Your task to perform on an android device: toggle show notifications on the lock screen Image 0: 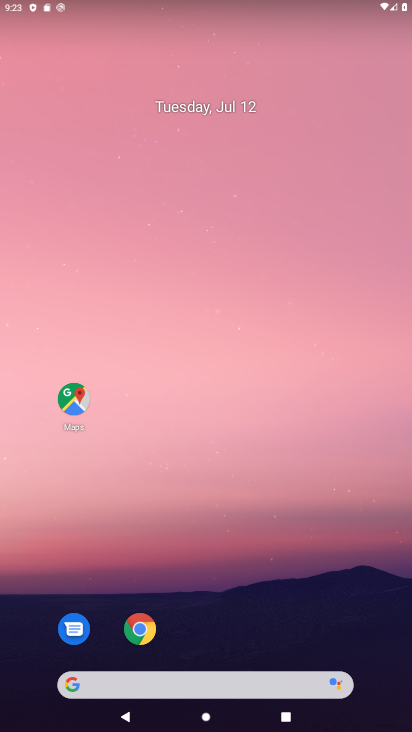
Step 0: drag from (239, 669) to (287, 50)
Your task to perform on an android device: toggle show notifications on the lock screen Image 1: 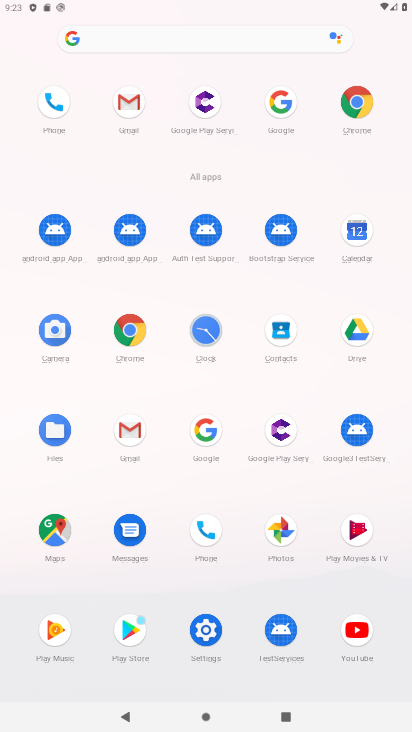
Step 1: drag from (174, 683) to (209, 21)
Your task to perform on an android device: toggle show notifications on the lock screen Image 2: 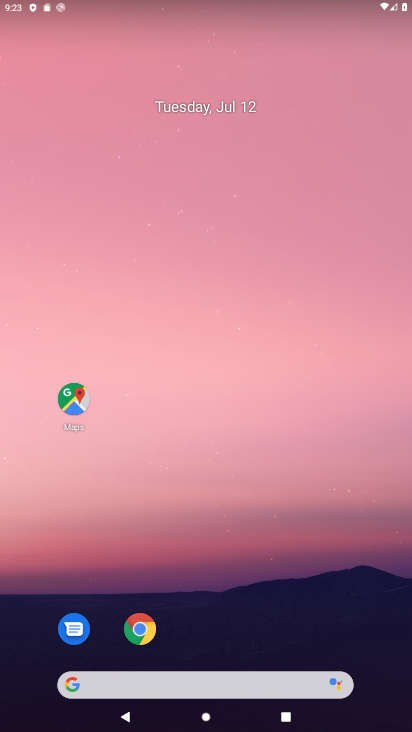
Step 2: drag from (303, 663) to (368, 1)
Your task to perform on an android device: toggle show notifications on the lock screen Image 3: 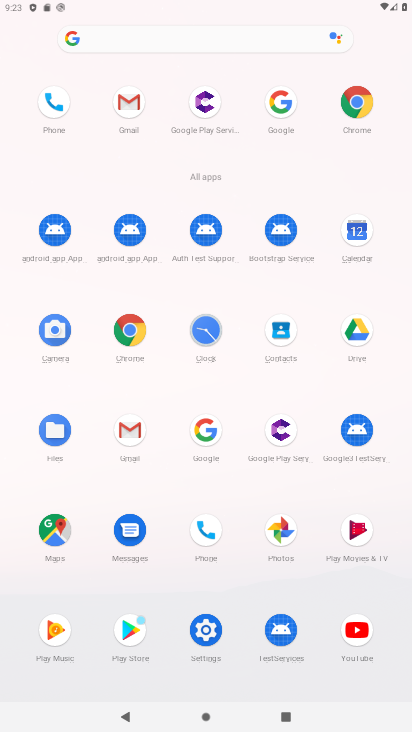
Step 3: click (208, 638)
Your task to perform on an android device: toggle show notifications on the lock screen Image 4: 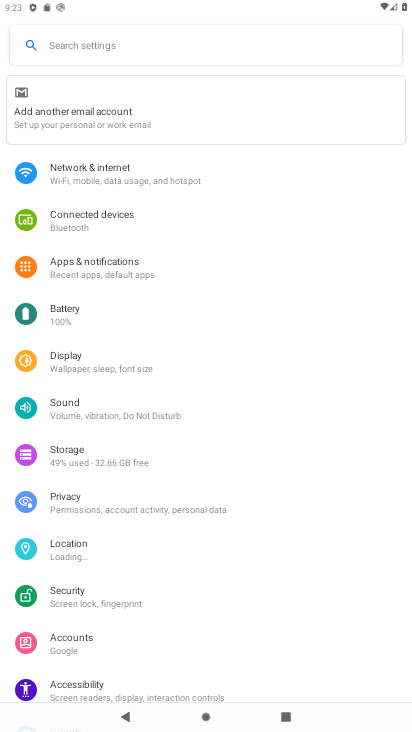
Step 4: click (120, 264)
Your task to perform on an android device: toggle show notifications on the lock screen Image 5: 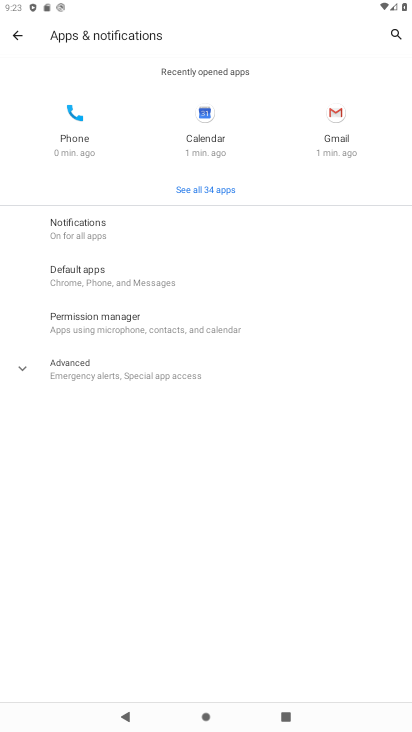
Step 5: click (107, 234)
Your task to perform on an android device: toggle show notifications on the lock screen Image 6: 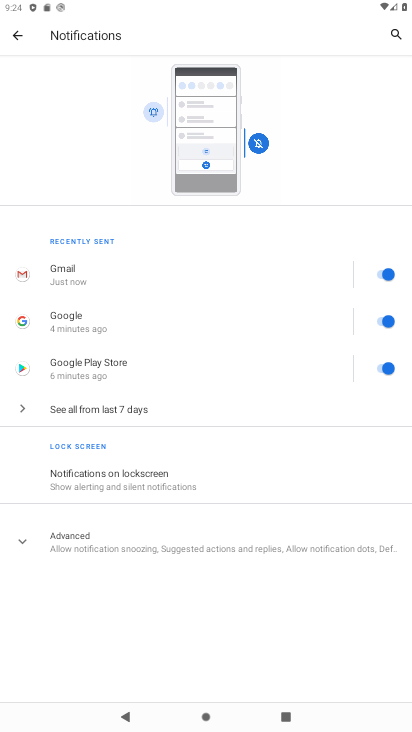
Step 6: click (111, 479)
Your task to perform on an android device: toggle show notifications on the lock screen Image 7: 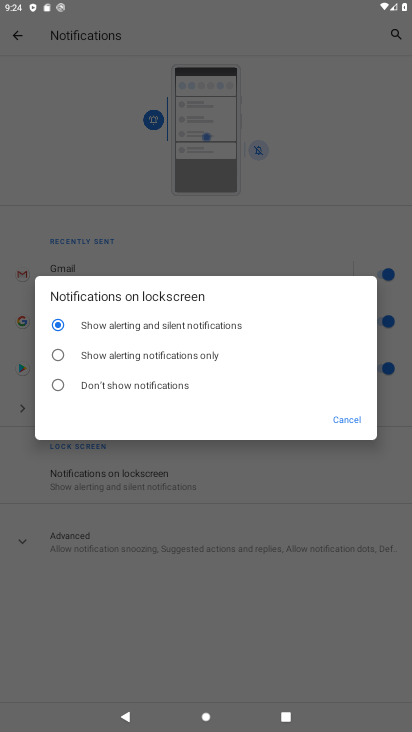
Step 7: click (65, 382)
Your task to perform on an android device: toggle show notifications on the lock screen Image 8: 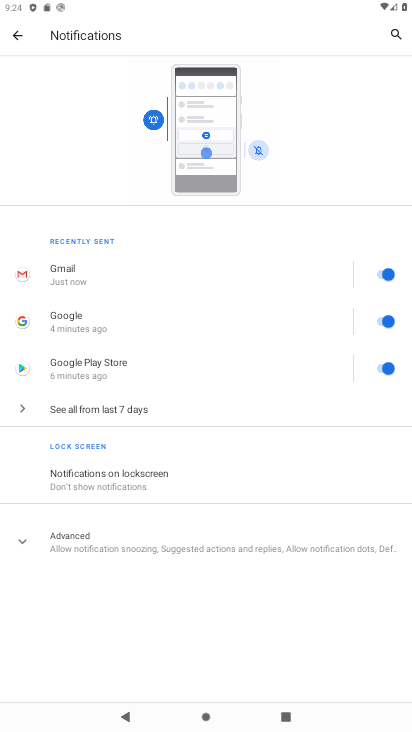
Step 8: task complete